Your task to perform on an android device: add a contact in the contacts app Image 0: 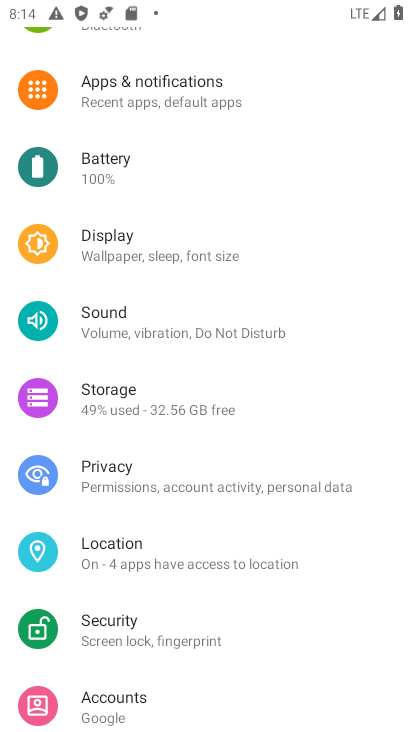
Step 0: press home button
Your task to perform on an android device: add a contact in the contacts app Image 1: 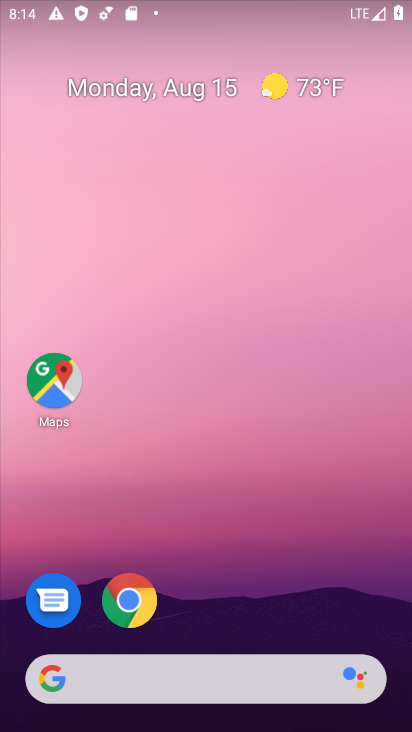
Step 1: drag from (229, 648) to (264, 89)
Your task to perform on an android device: add a contact in the contacts app Image 2: 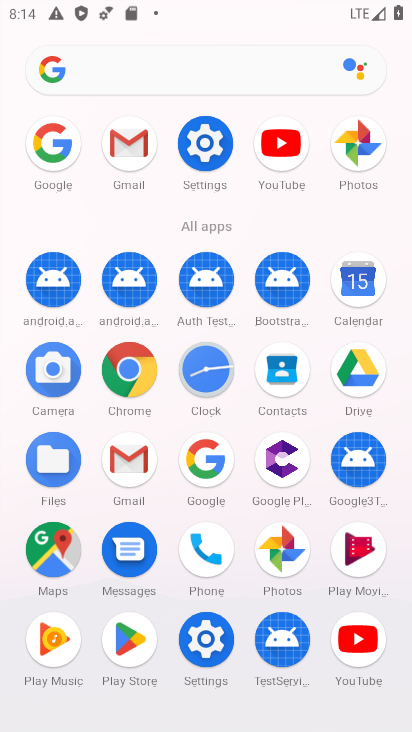
Step 2: click (286, 374)
Your task to perform on an android device: add a contact in the contacts app Image 3: 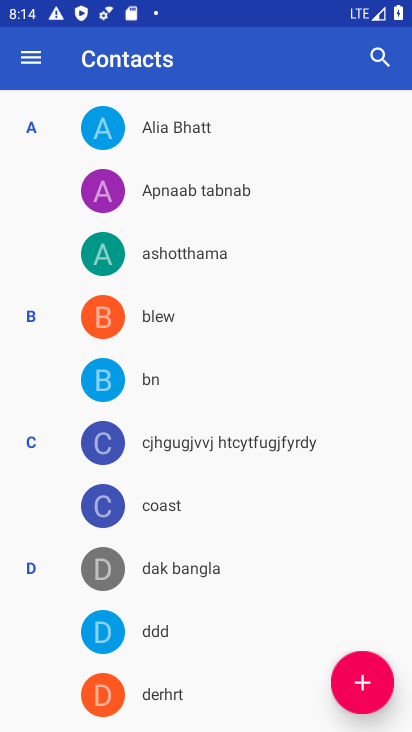
Step 3: click (354, 679)
Your task to perform on an android device: add a contact in the contacts app Image 4: 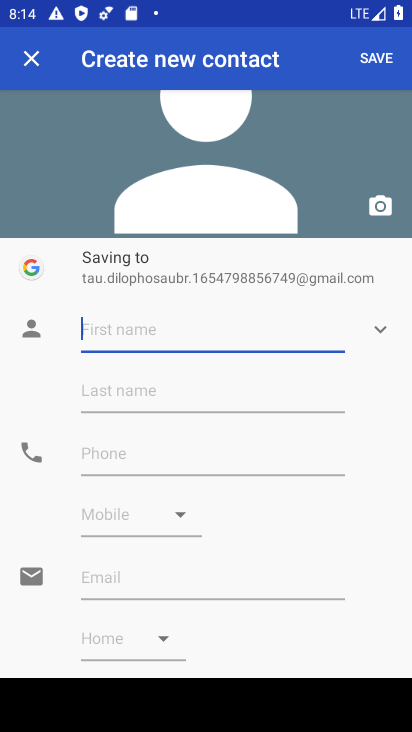
Step 4: type "uyuyuy"
Your task to perform on an android device: add a contact in the contacts app Image 5: 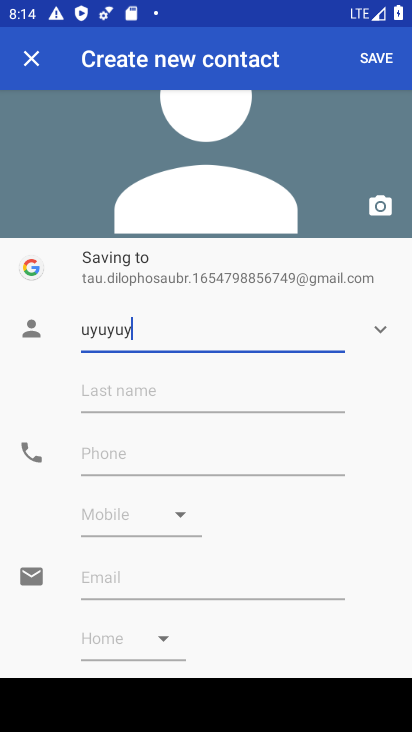
Step 5: type ""
Your task to perform on an android device: add a contact in the contacts app Image 6: 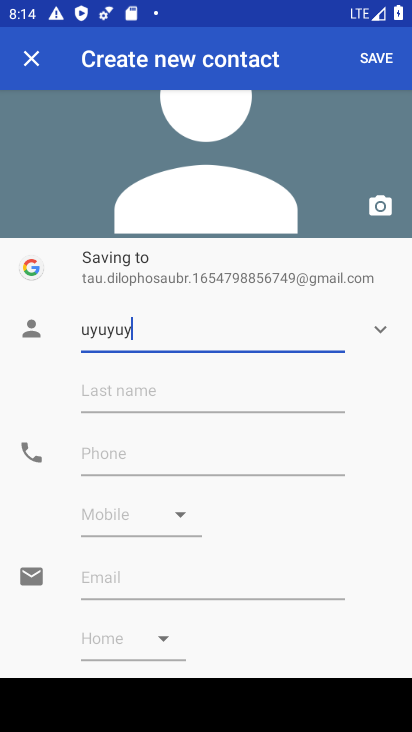
Step 6: click (102, 446)
Your task to perform on an android device: add a contact in the contacts app Image 7: 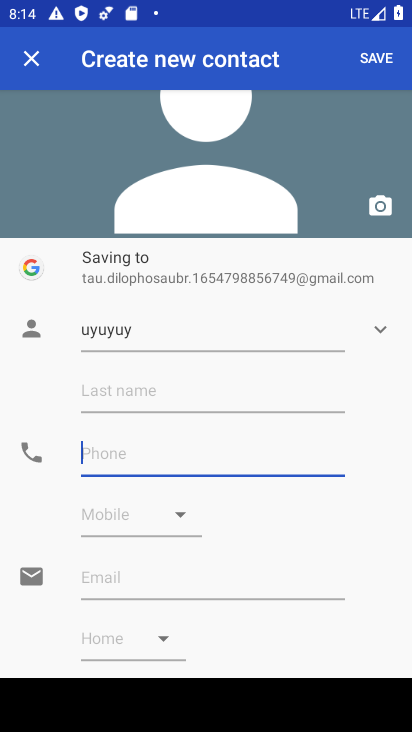
Step 7: type "7878"
Your task to perform on an android device: add a contact in the contacts app Image 8: 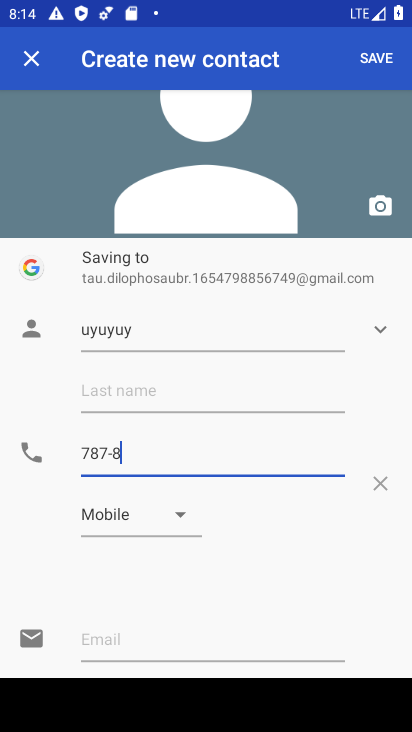
Step 8: type ""
Your task to perform on an android device: add a contact in the contacts app Image 9: 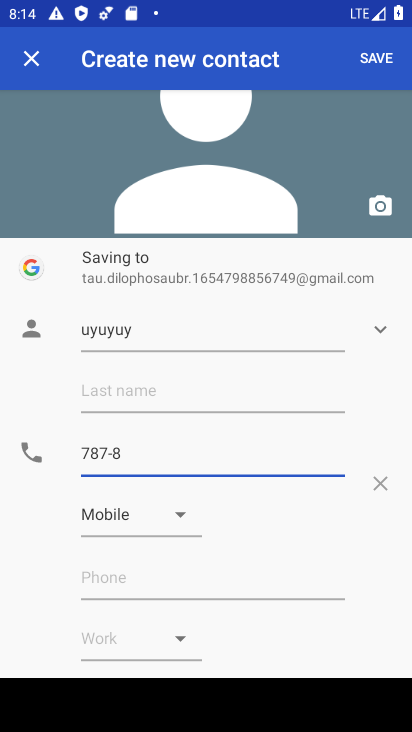
Step 9: click (374, 51)
Your task to perform on an android device: add a contact in the contacts app Image 10: 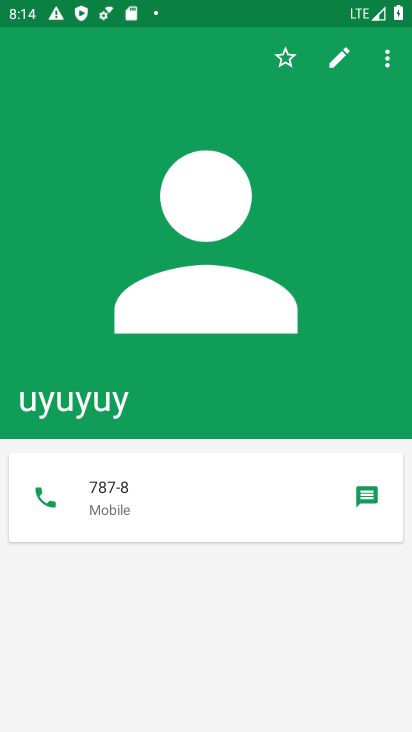
Step 10: task complete